Your task to perform on an android device: Set the phone to "Do not disturb". Image 0: 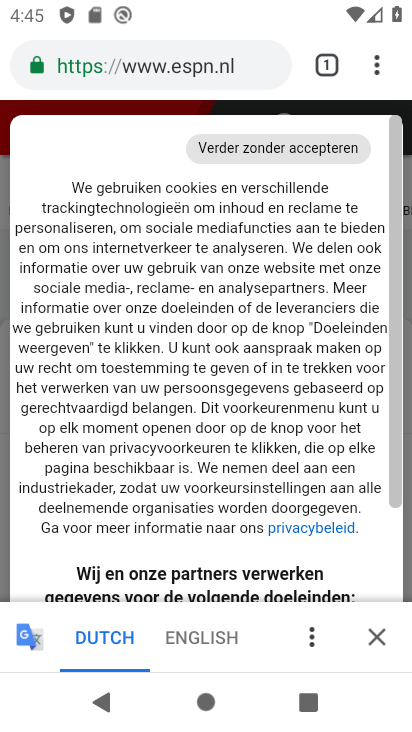
Step 0: drag from (201, 558) to (194, 13)
Your task to perform on an android device: Set the phone to "Do not disturb". Image 1: 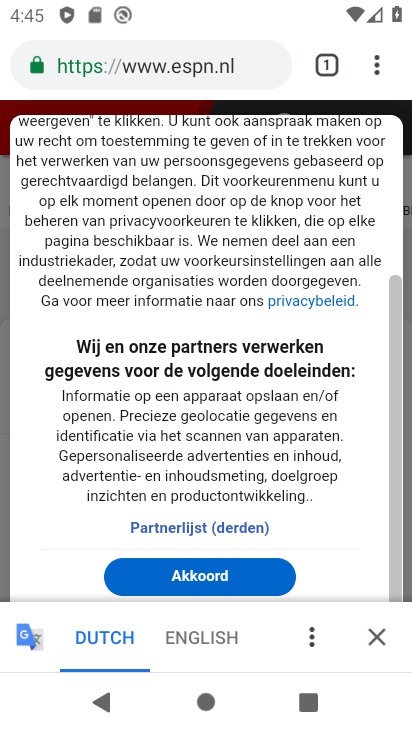
Step 1: press home button
Your task to perform on an android device: Set the phone to "Do not disturb". Image 2: 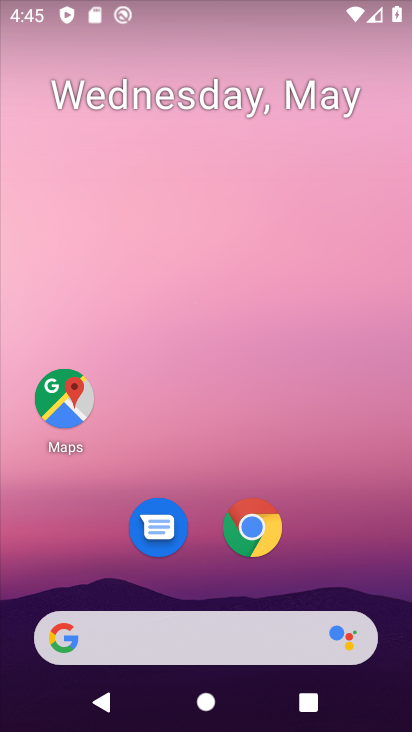
Step 2: drag from (209, 600) to (209, 87)
Your task to perform on an android device: Set the phone to "Do not disturb". Image 3: 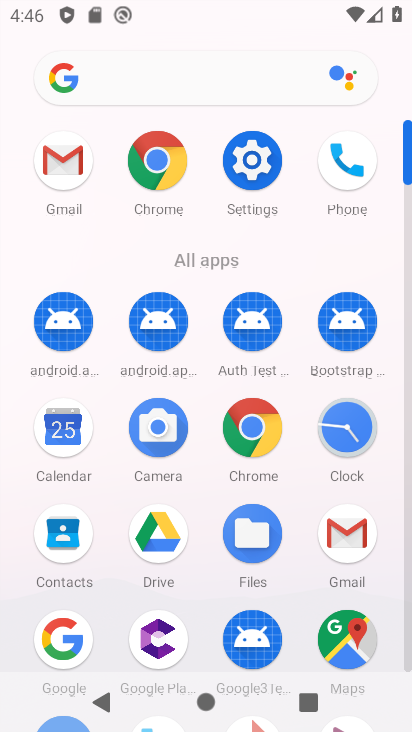
Step 3: drag from (212, 606) to (218, 180)
Your task to perform on an android device: Set the phone to "Do not disturb". Image 4: 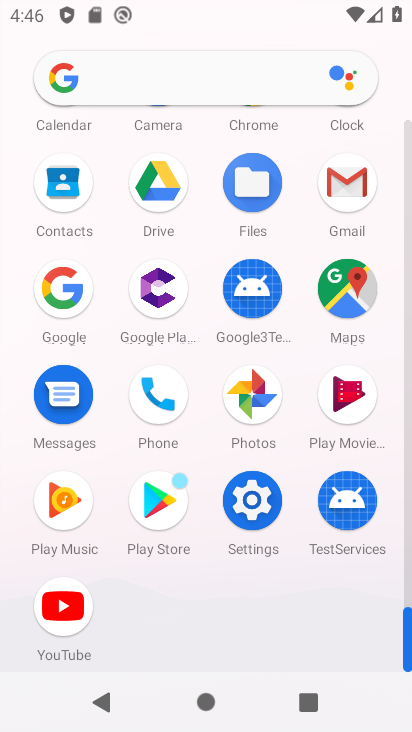
Step 4: click (247, 500)
Your task to perform on an android device: Set the phone to "Do not disturb". Image 5: 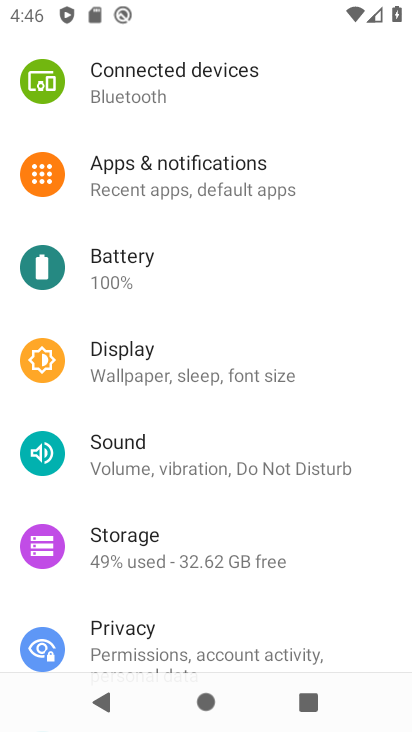
Step 5: click (131, 452)
Your task to perform on an android device: Set the phone to "Do not disturb". Image 6: 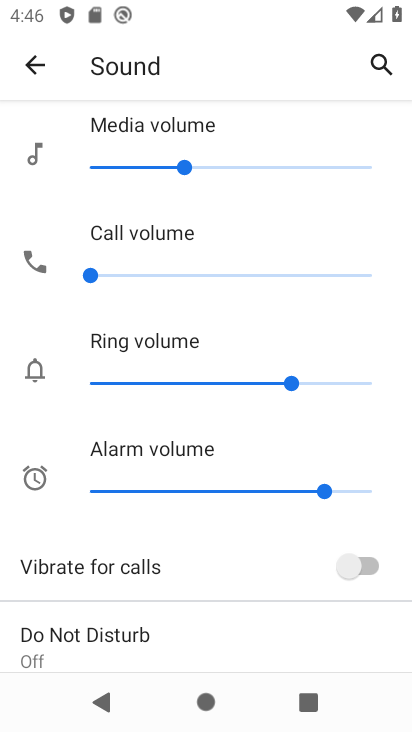
Step 6: task complete